Your task to perform on an android device: View the shopping cart on bestbuy.com. Add "usb-c to usb-a" to the cart on bestbuy.com, then select checkout. Image 0: 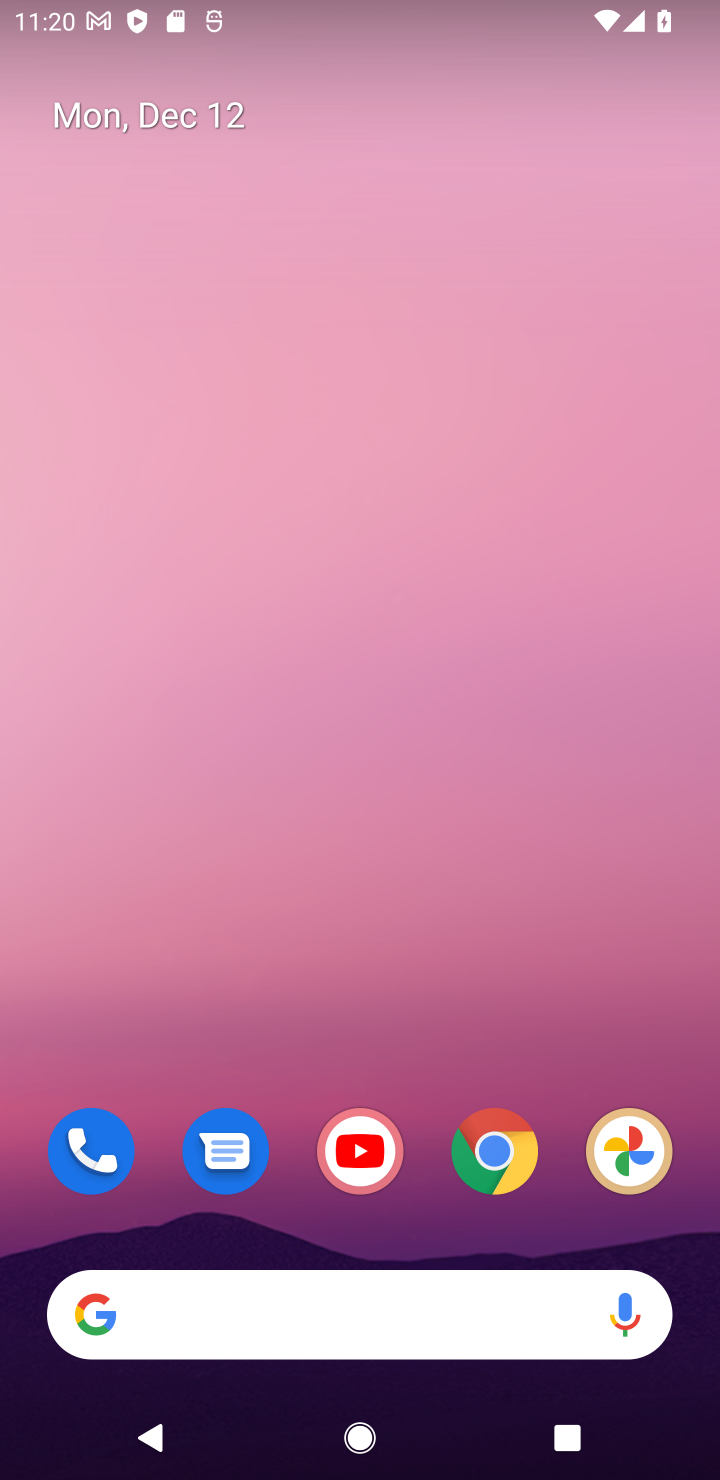
Step 0: press home button
Your task to perform on an android device: View the shopping cart on bestbuy.com. Add "usb-c to usb-a" to the cart on bestbuy.com, then select checkout. Image 1: 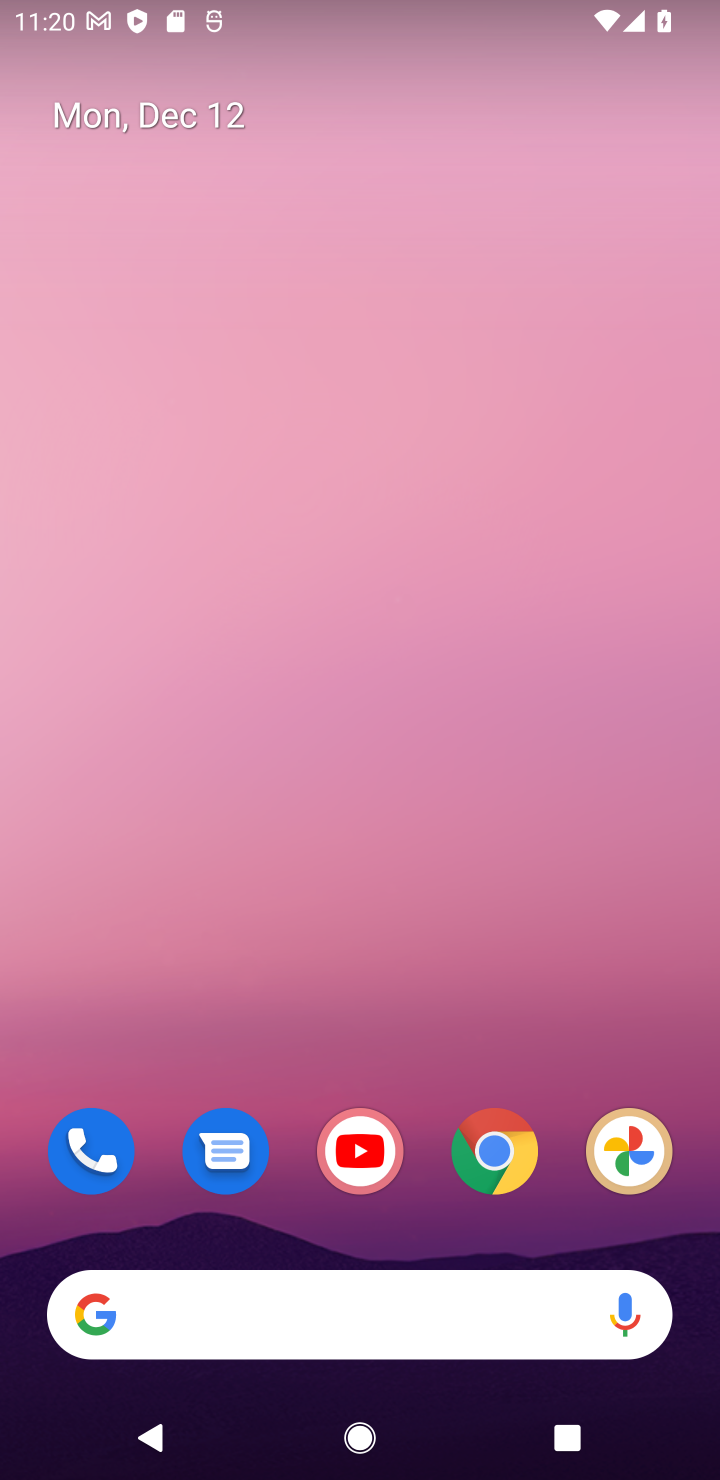
Step 1: drag from (285, 1302) to (372, 430)
Your task to perform on an android device: View the shopping cart on bestbuy.com. Add "usb-c to usb-a" to the cart on bestbuy.com, then select checkout. Image 2: 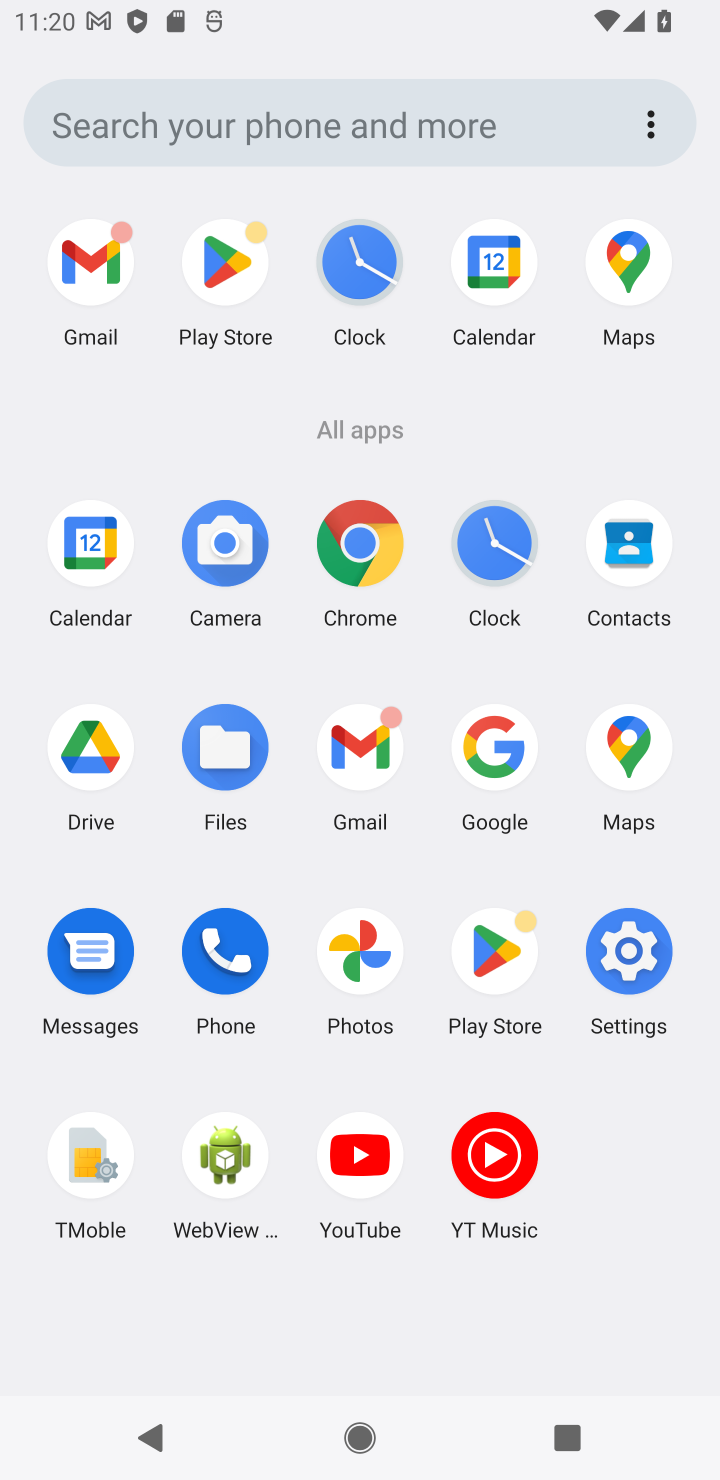
Step 2: click (203, 965)
Your task to perform on an android device: View the shopping cart on bestbuy.com. Add "usb-c to usb-a" to the cart on bestbuy.com, then select checkout. Image 3: 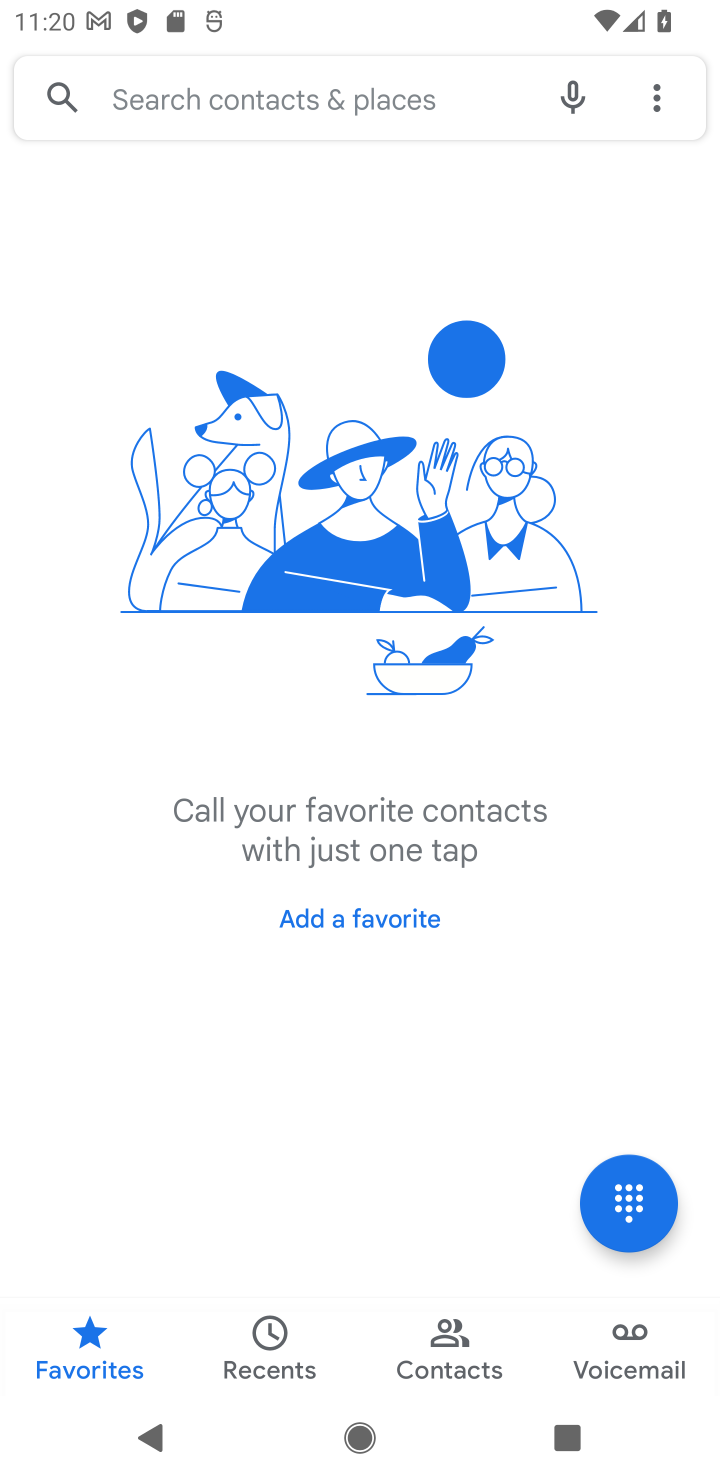
Step 3: press home button
Your task to perform on an android device: View the shopping cart on bestbuy.com. Add "usb-c to usb-a" to the cart on bestbuy.com, then select checkout. Image 4: 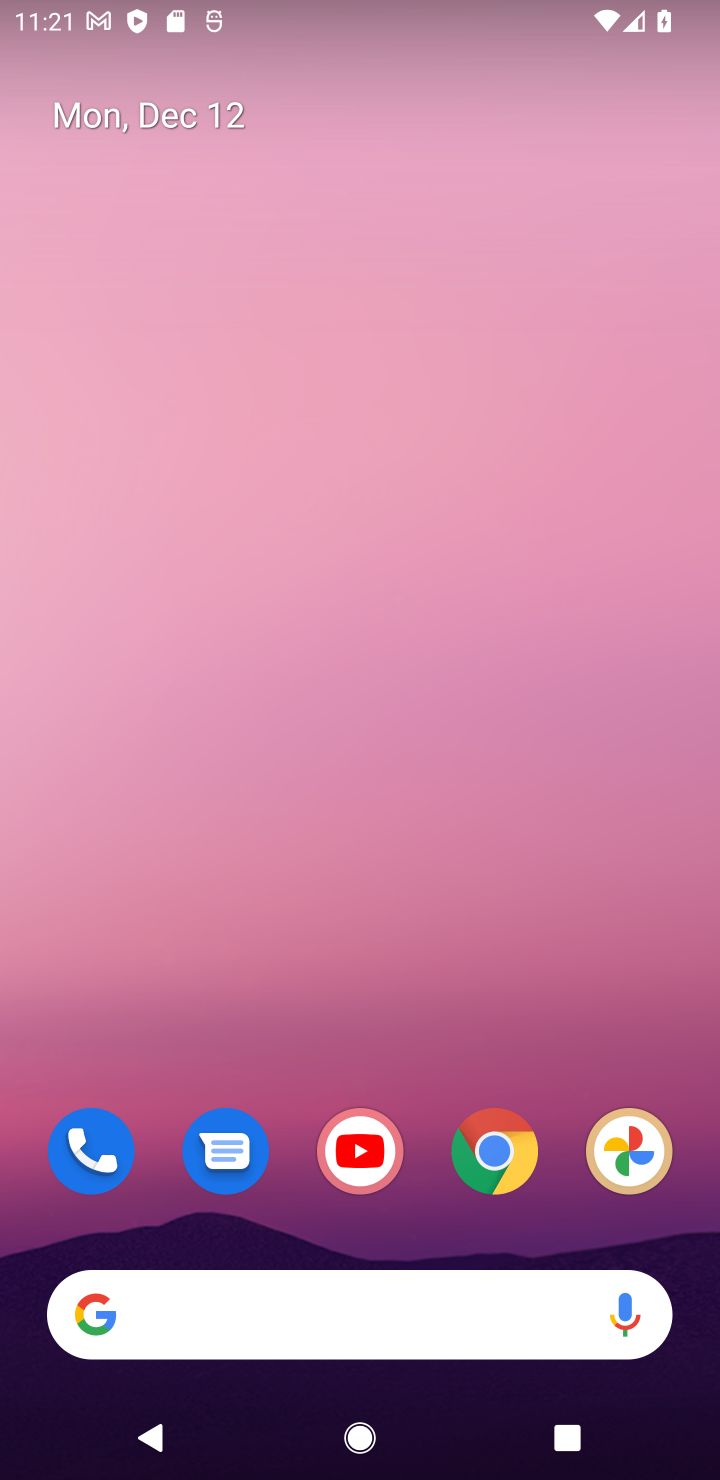
Step 4: drag from (300, 787) to (310, 279)
Your task to perform on an android device: View the shopping cart on bestbuy.com. Add "usb-c to usb-a" to the cart on bestbuy.com, then select checkout. Image 5: 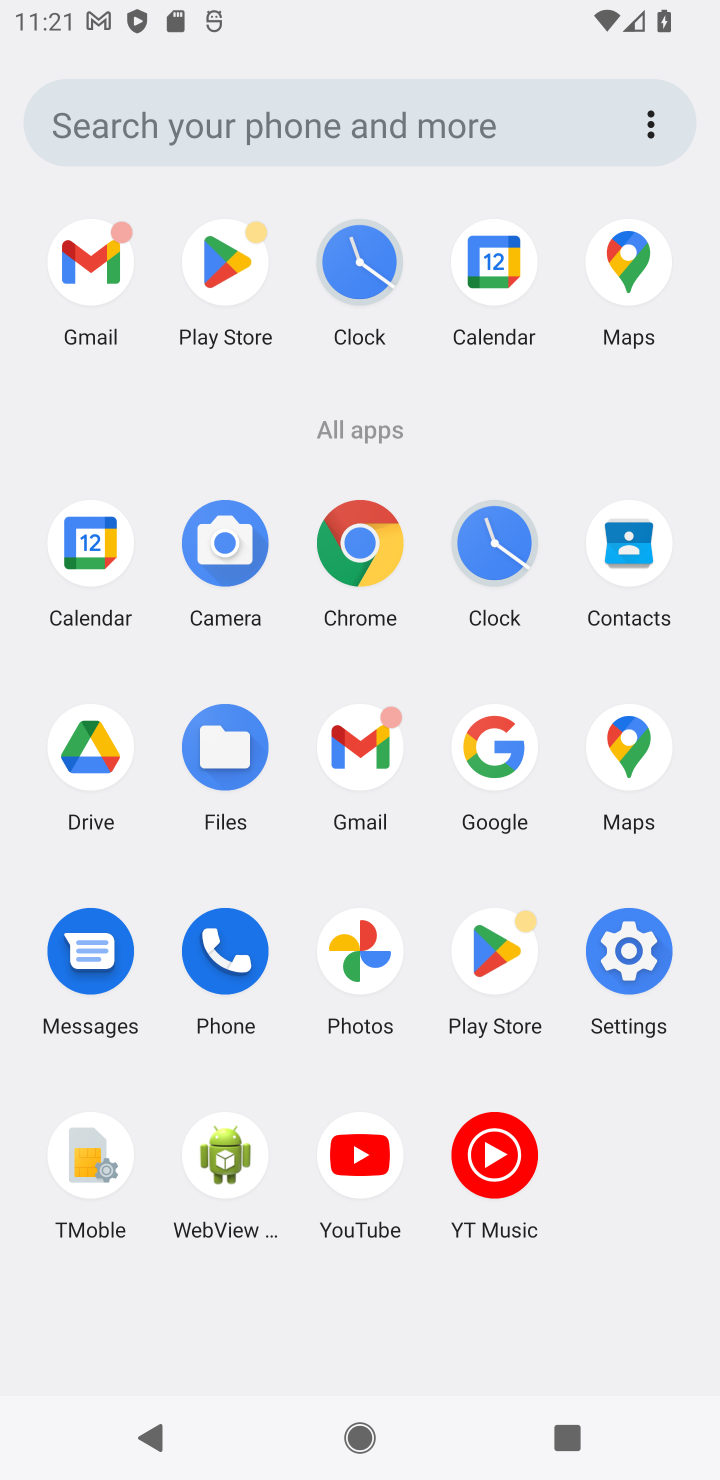
Step 5: click (194, 954)
Your task to perform on an android device: View the shopping cart on bestbuy.com. Add "usb-c to usb-a" to the cart on bestbuy.com, then select checkout. Image 6: 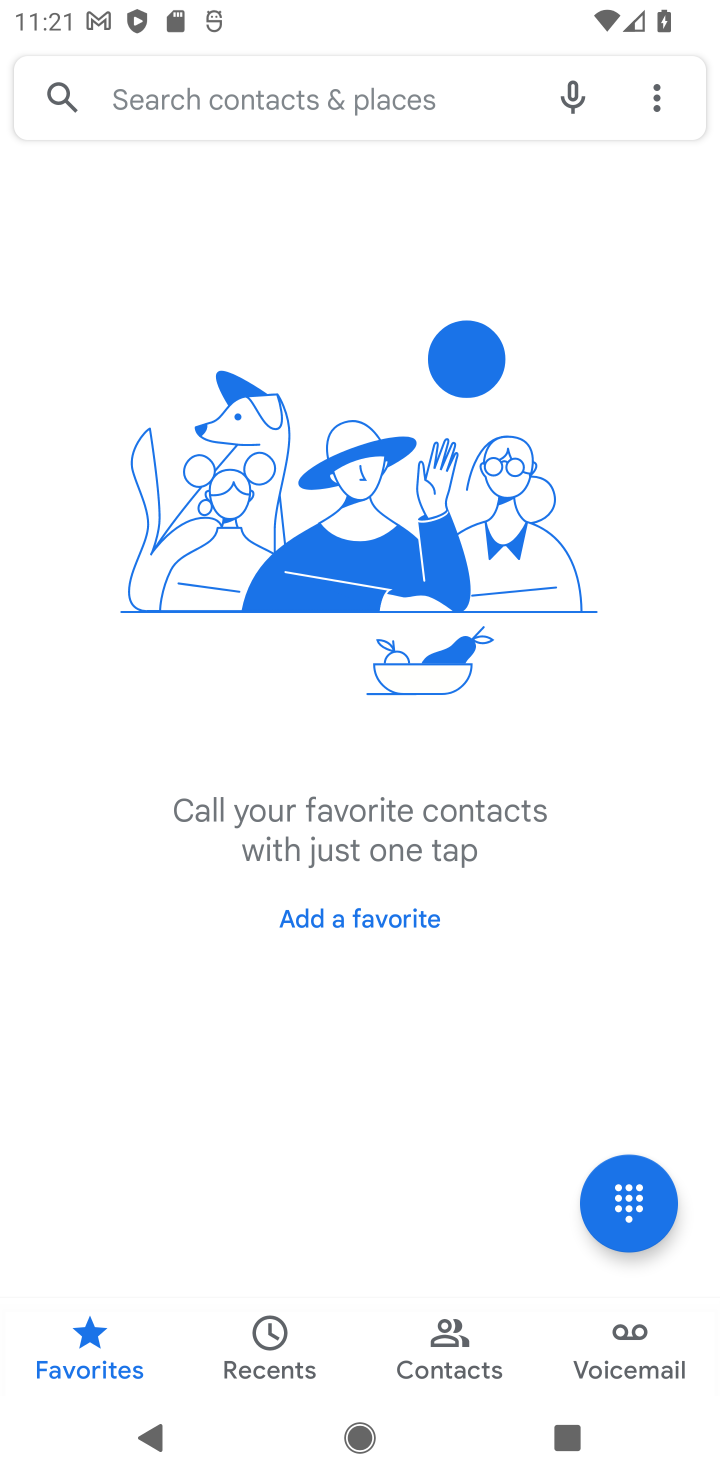
Step 6: press home button
Your task to perform on an android device: View the shopping cart on bestbuy.com. Add "usb-c to usb-a" to the cart on bestbuy.com, then select checkout. Image 7: 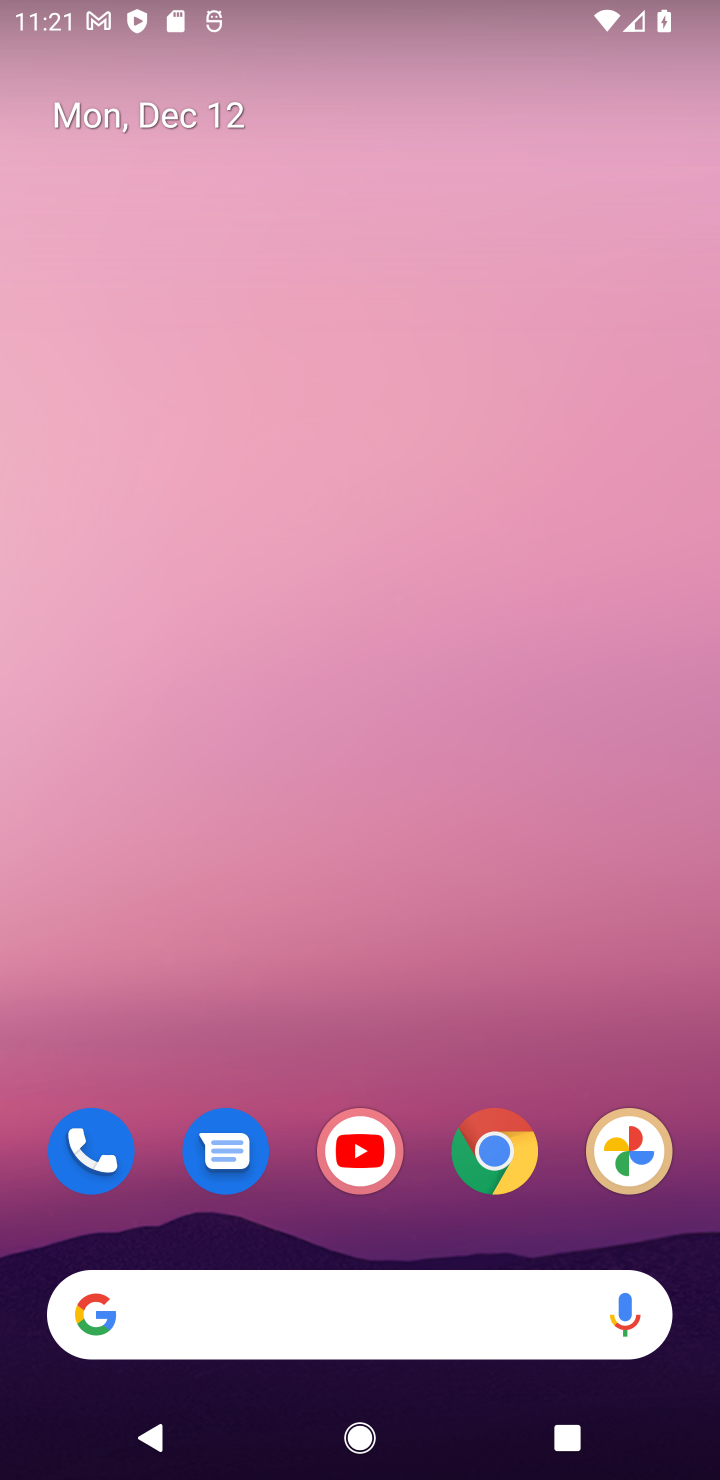
Step 7: drag from (438, 1279) to (398, 494)
Your task to perform on an android device: View the shopping cart on bestbuy.com. Add "usb-c to usb-a" to the cart on bestbuy.com, then select checkout. Image 8: 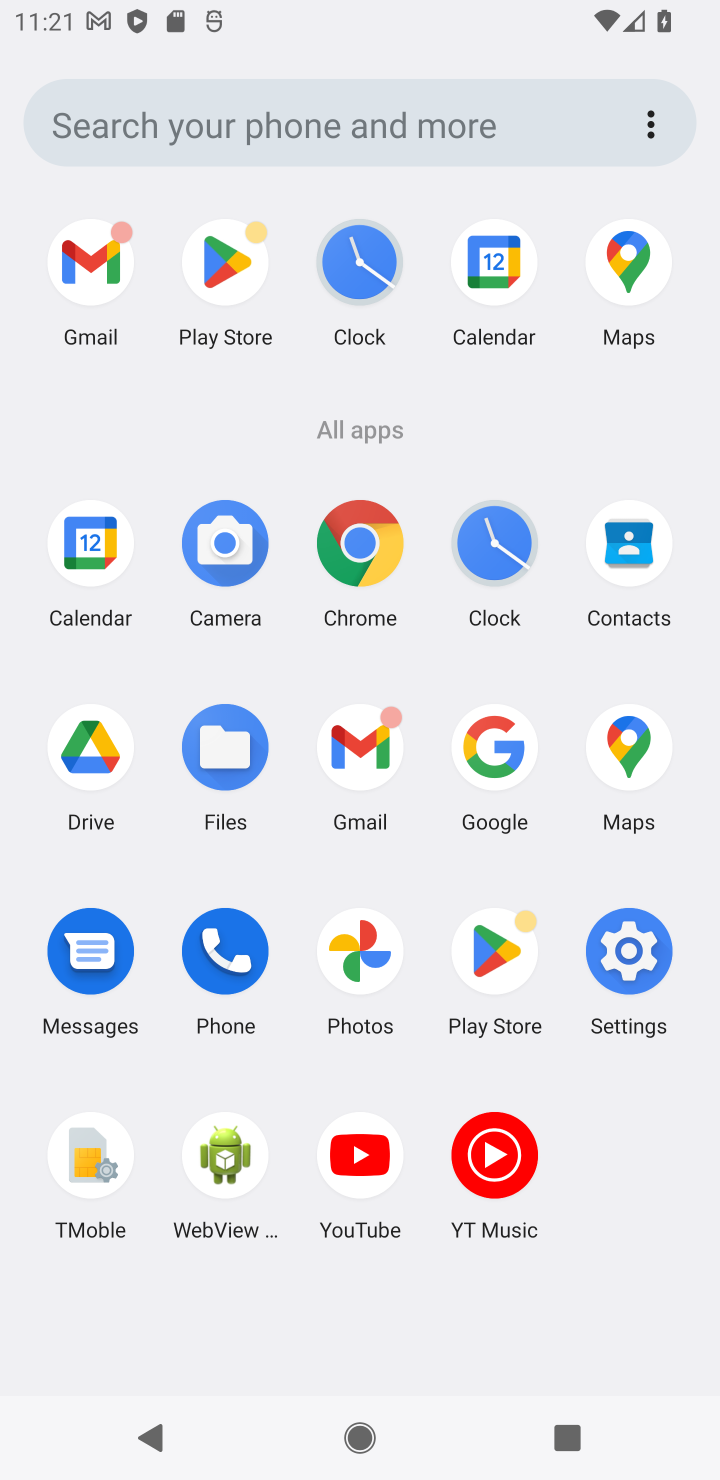
Step 8: click (489, 758)
Your task to perform on an android device: View the shopping cart on bestbuy.com. Add "usb-c to usb-a" to the cart on bestbuy.com, then select checkout. Image 9: 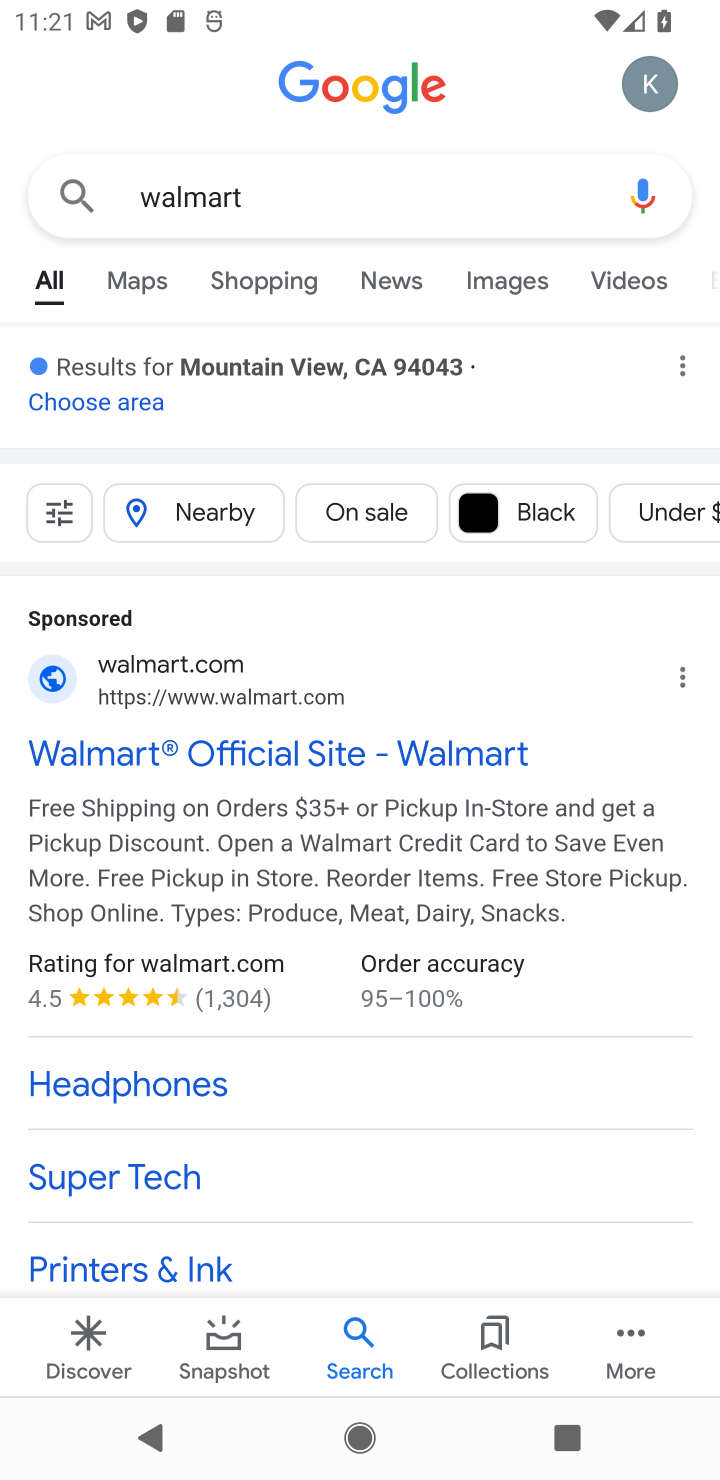
Step 9: click (210, 750)
Your task to perform on an android device: View the shopping cart on bestbuy.com. Add "usb-c to usb-a" to the cart on bestbuy.com, then select checkout. Image 10: 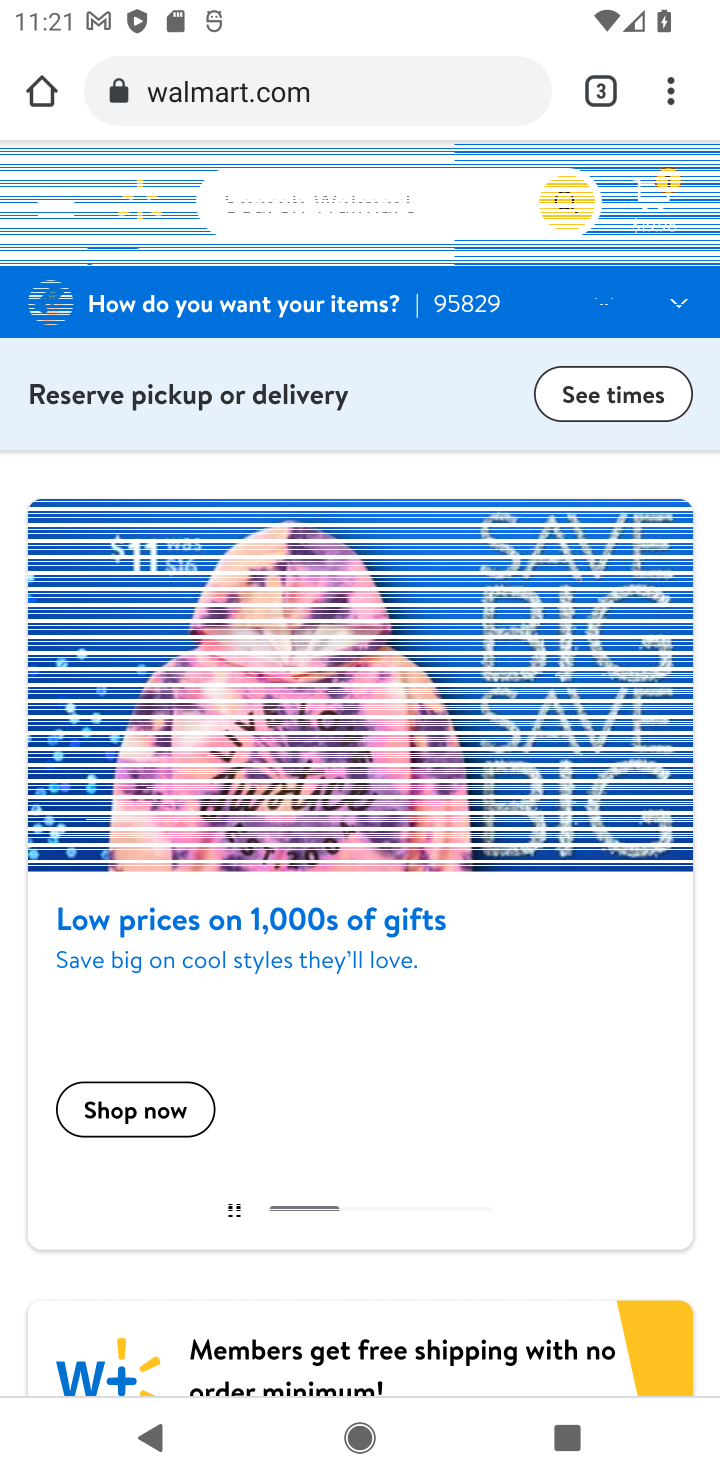
Step 10: click (317, 194)
Your task to perform on an android device: View the shopping cart on bestbuy.com. Add "usb-c to usb-a" to the cart on bestbuy.com, then select checkout. Image 11: 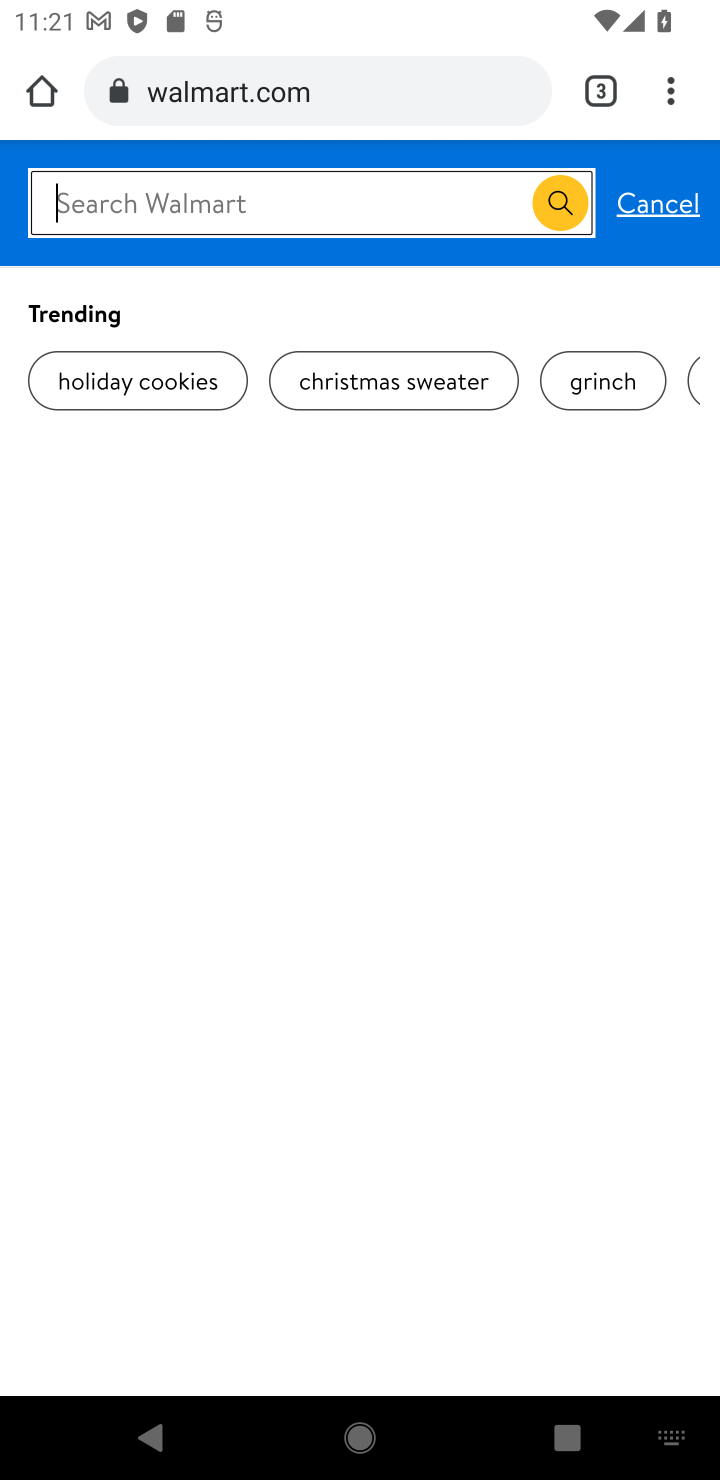
Step 11: type "usb-c to usb-a"
Your task to perform on an android device: View the shopping cart on bestbuy.com. Add "usb-c to usb-a" to the cart on bestbuy.com, then select checkout. Image 12: 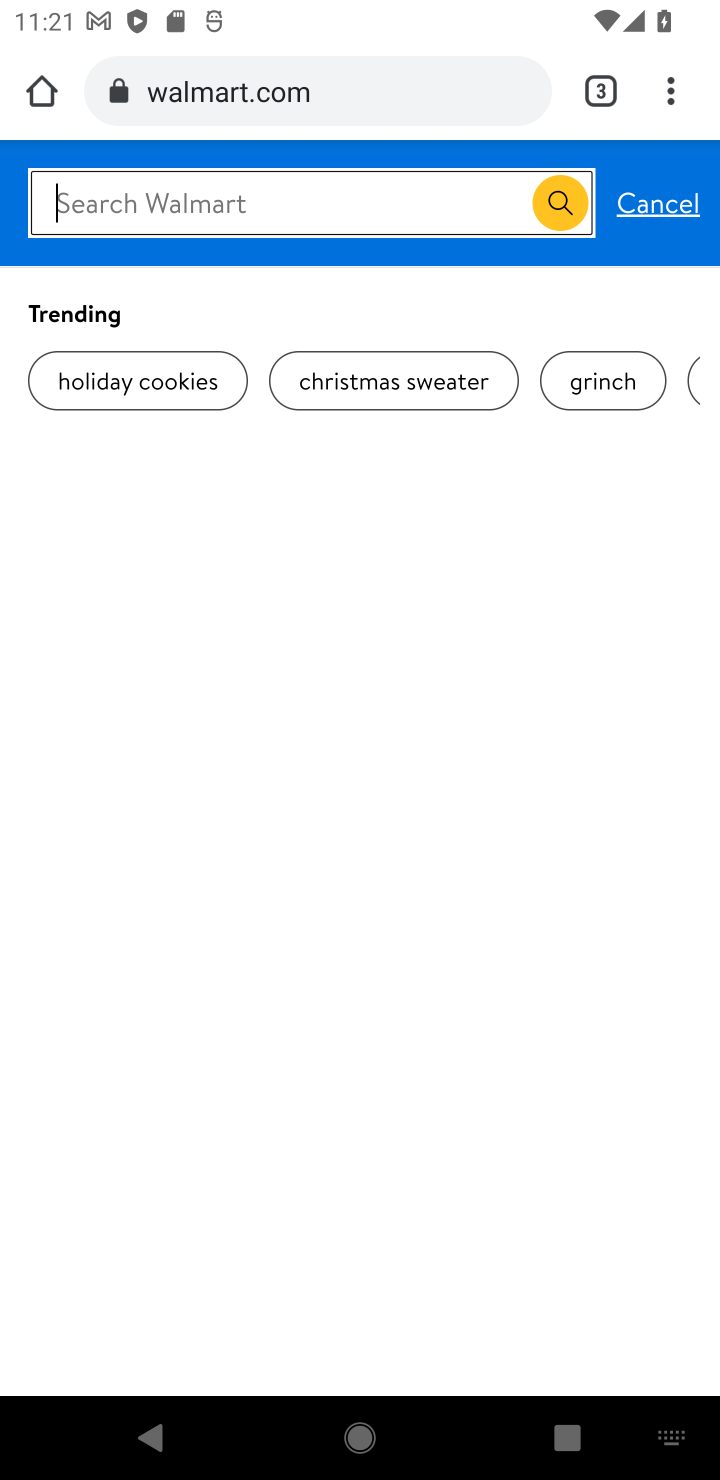
Step 12: click (553, 203)
Your task to perform on an android device: View the shopping cart on bestbuy.com. Add "usb-c to usb-a" to the cart on bestbuy.com, then select checkout. Image 13: 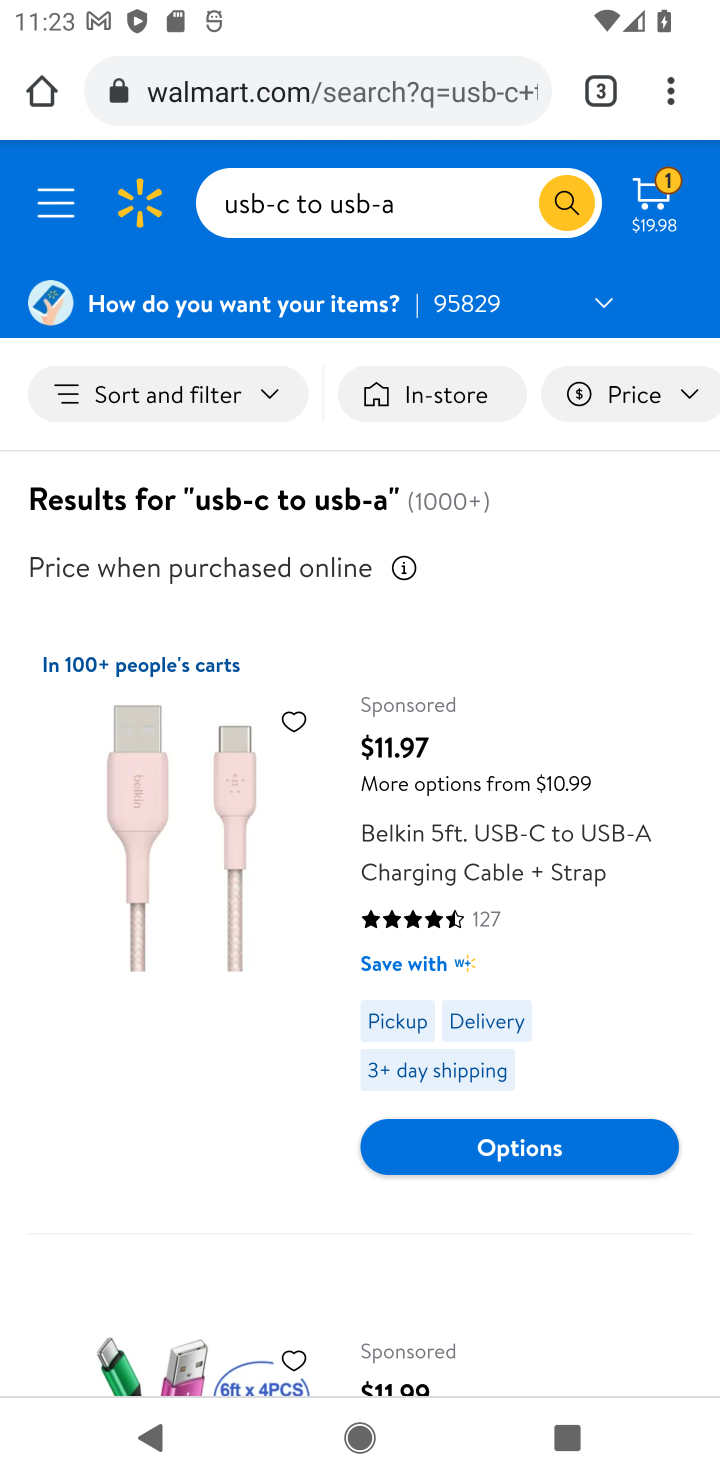
Step 13: click (534, 1142)
Your task to perform on an android device: View the shopping cart on bestbuy.com. Add "usb-c to usb-a" to the cart on bestbuy.com, then select checkout. Image 14: 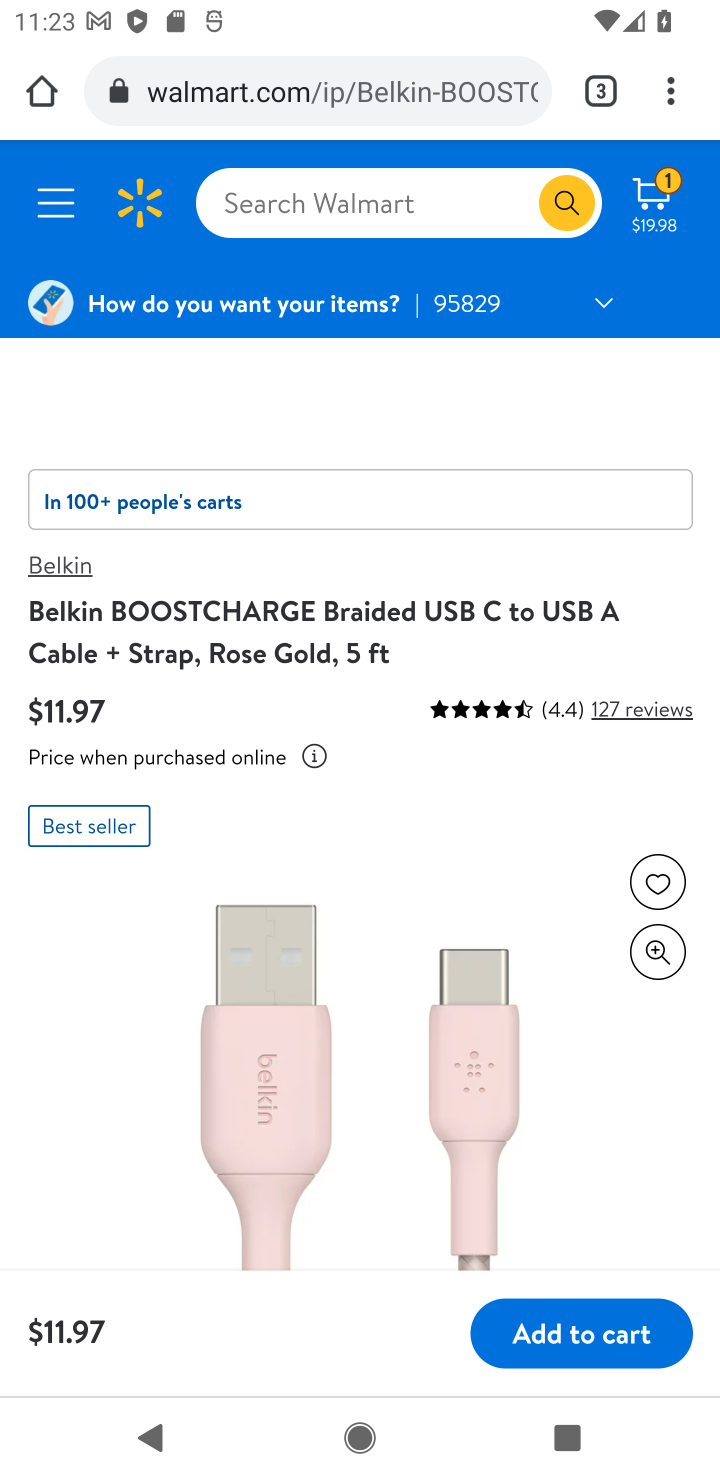
Step 14: click (629, 1339)
Your task to perform on an android device: View the shopping cart on bestbuy.com. Add "usb-c to usb-a" to the cart on bestbuy.com, then select checkout. Image 15: 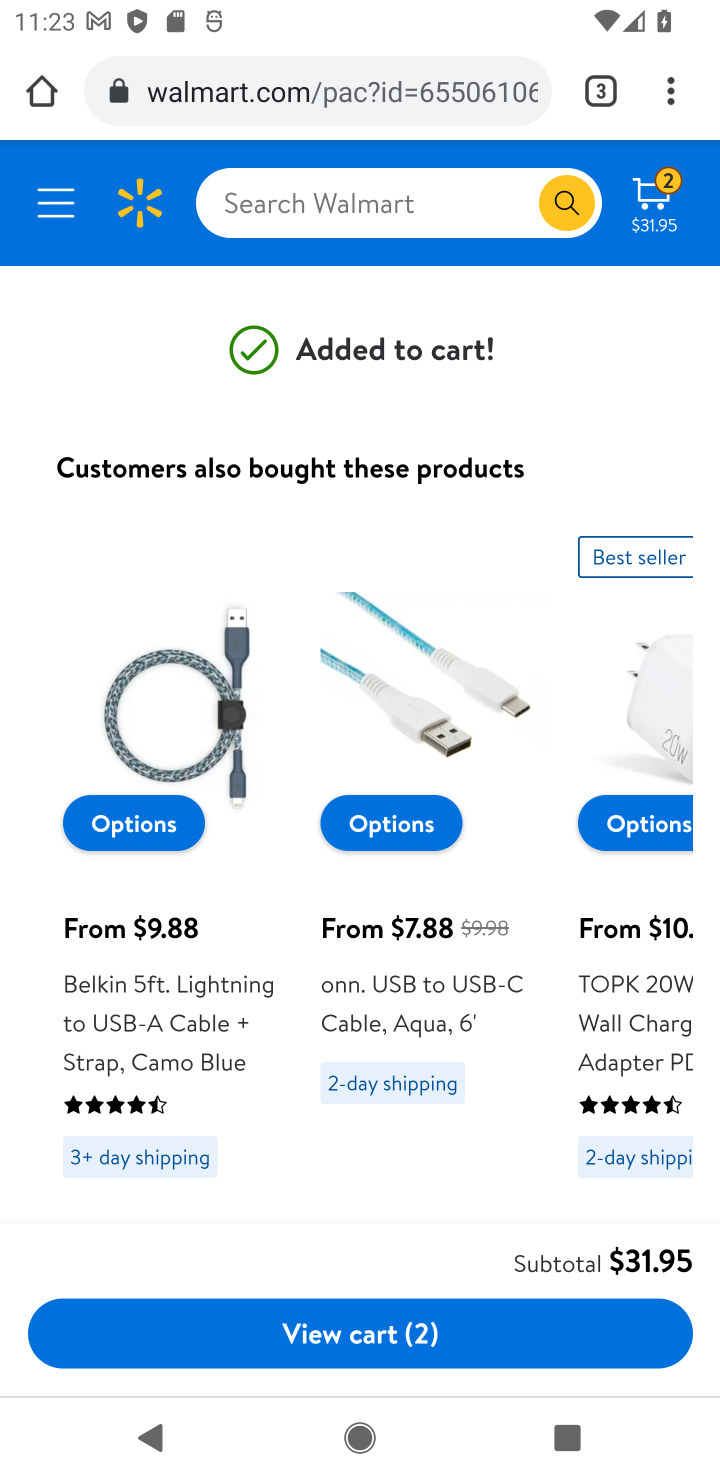
Step 15: click (369, 1336)
Your task to perform on an android device: View the shopping cart on bestbuy.com. Add "usb-c to usb-a" to the cart on bestbuy.com, then select checkout. Image 16: 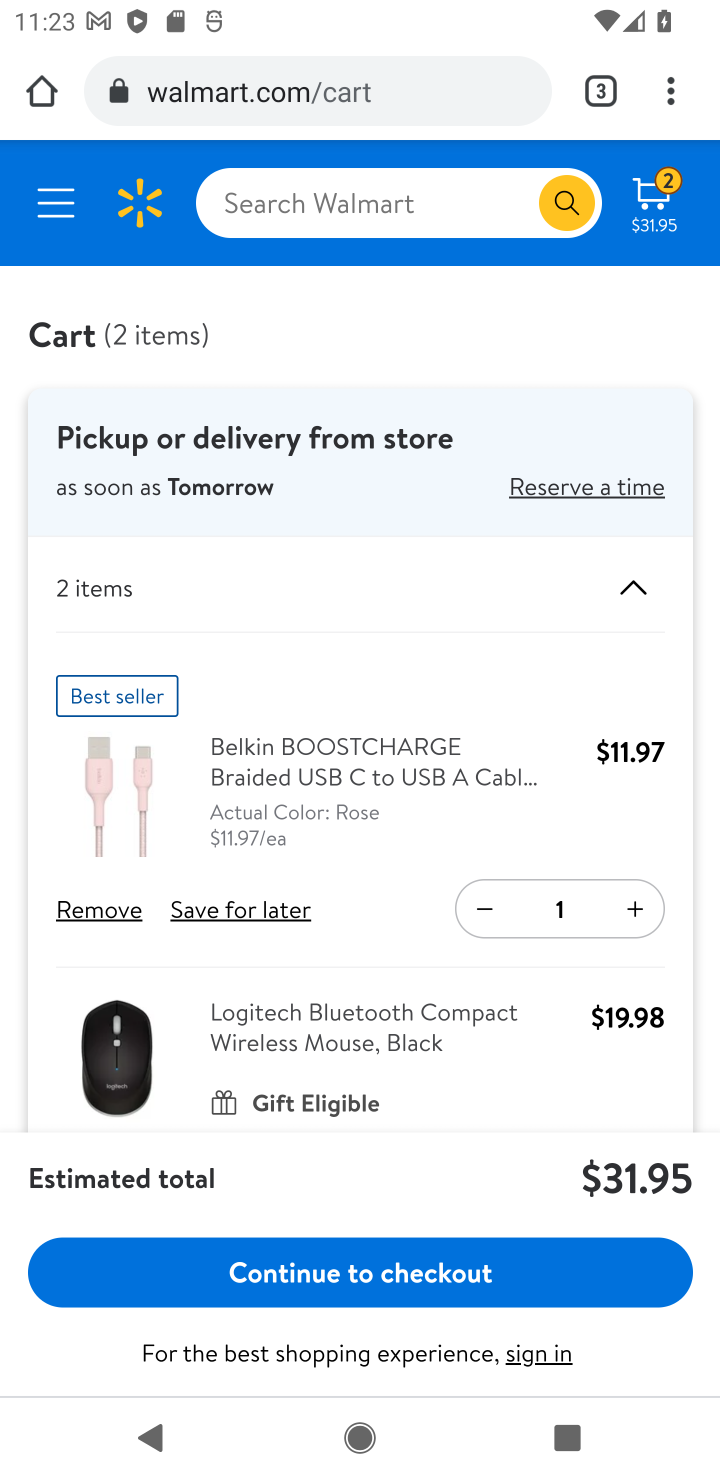
Step 16: click (360, 1290)
Your task to perform on an android device: View the shopping cart on bestbuy.com. Add "usb-c to usb-a" to the cart on bestbuy.com, then select checkout. Image 17: 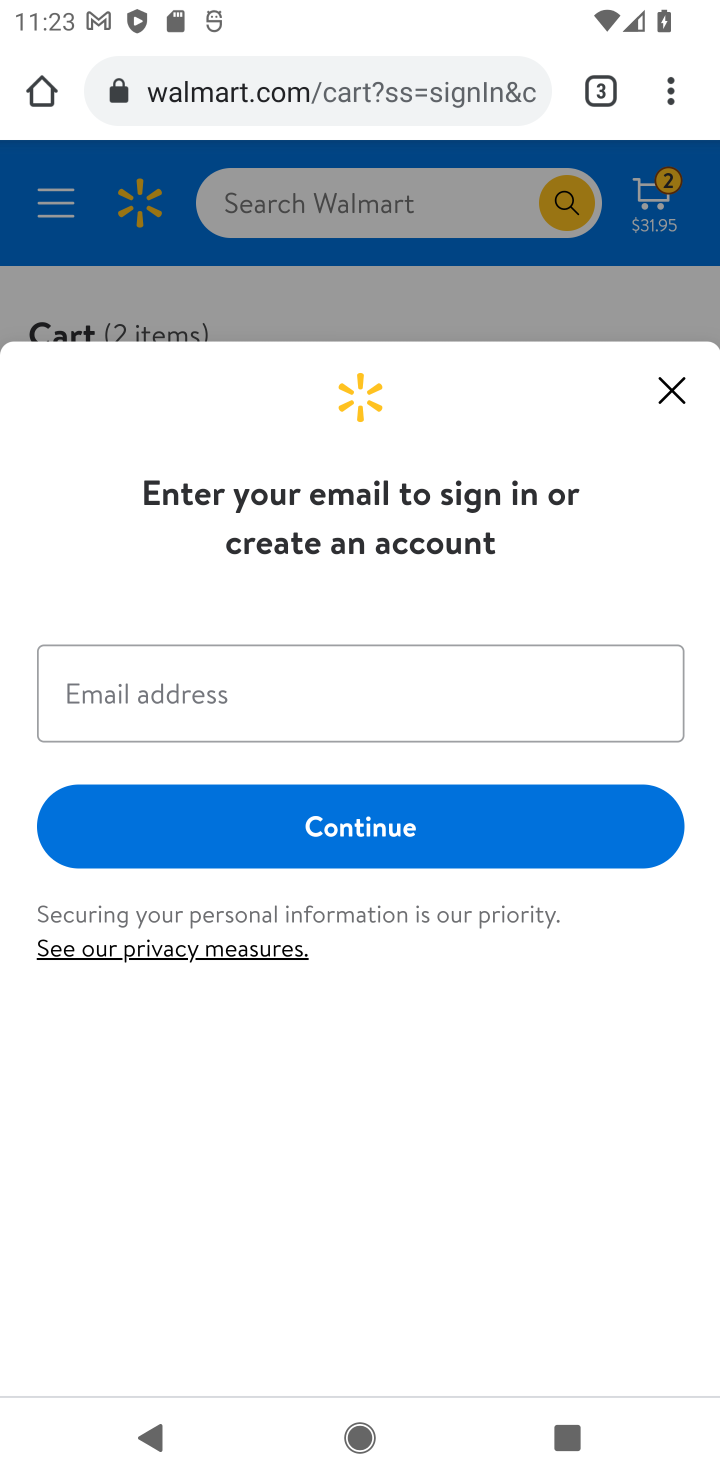
Step 17: task complete